Your task to perform on an android device: Open my contact list Image 0: 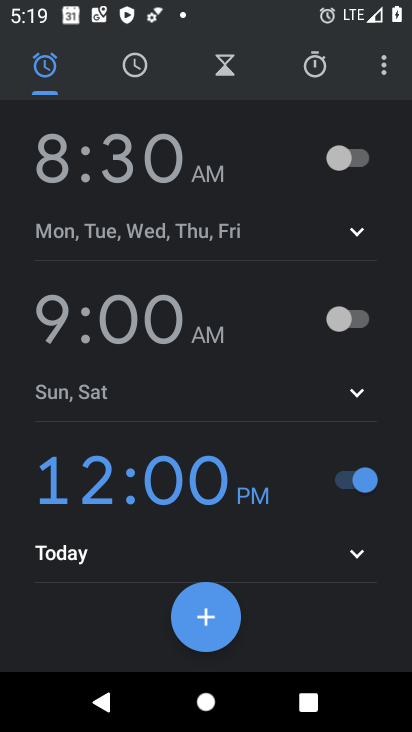
Step 0: press home button
Your task to perform on an android device: Open my contact list Image 1: 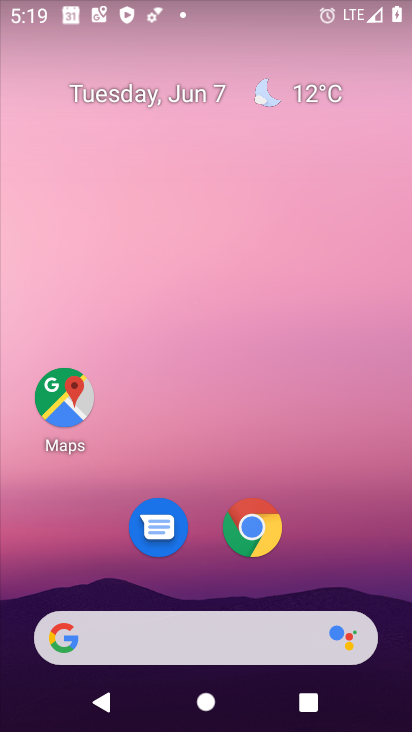
Step 1: drag from (331, 546) to (360, 209)
Your task to perform on an android device: Open my contact list Image 2: 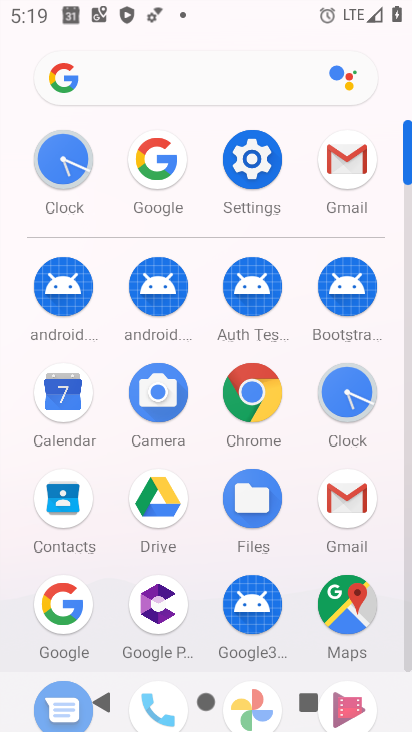
Step 2: click (62, 503)
Your task to perform on an android device: Open my contact list Image 3: 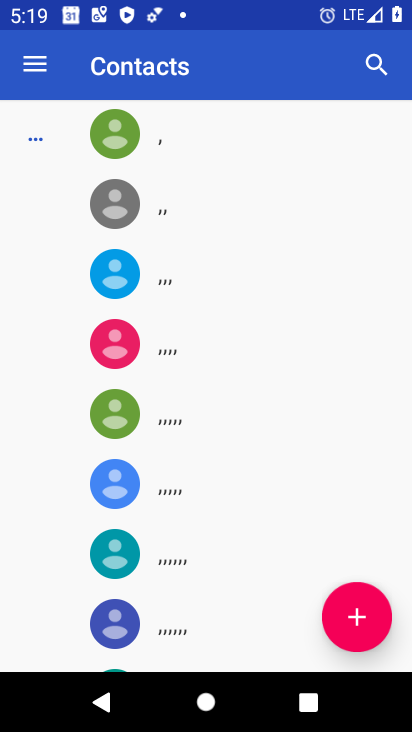
Step 3: task complete